Your task to perform on an android device: What's on my calendar today? Image 0: 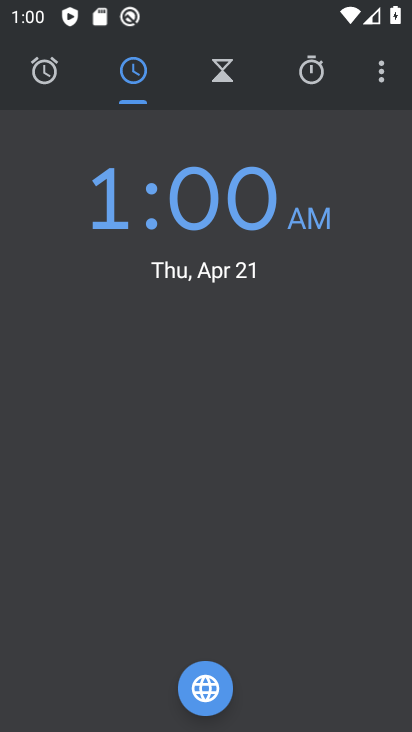
Step 0: press home button
Your task to perform on an android device: What's on my calendar today? Image 1: 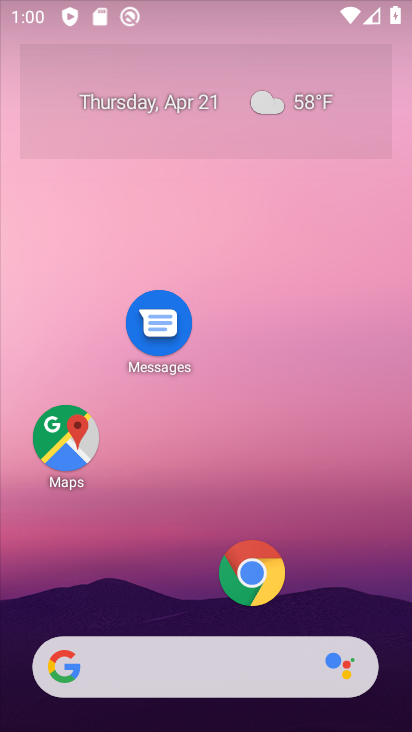
Step 1: drag from (190, 396) to (163, 71)
Your task to perform on an android device: What's on my calendar today? Image 2: 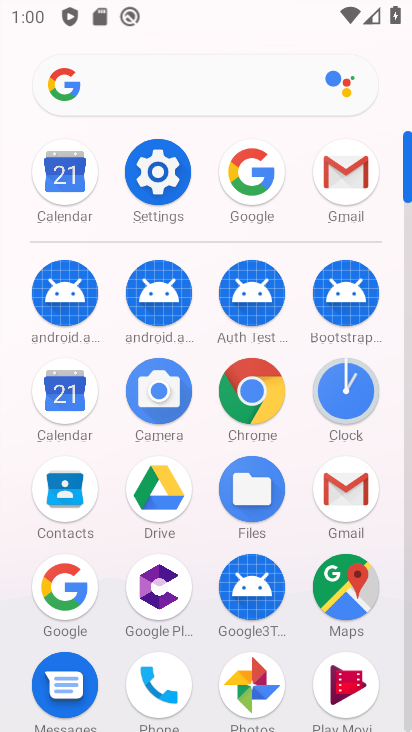
Step 2: click (68, 175)
Your task to perform on an android device: What's on my calendar today? Image 3: 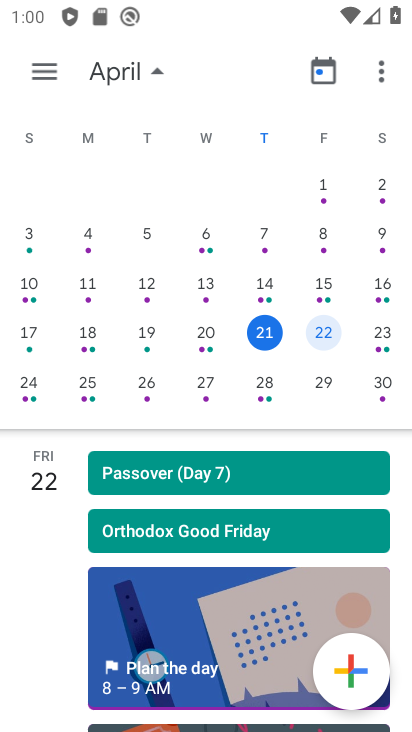
Step 3: click (272, 338)
Your task to perform on an android device: What's on my calendar today? Image 4: 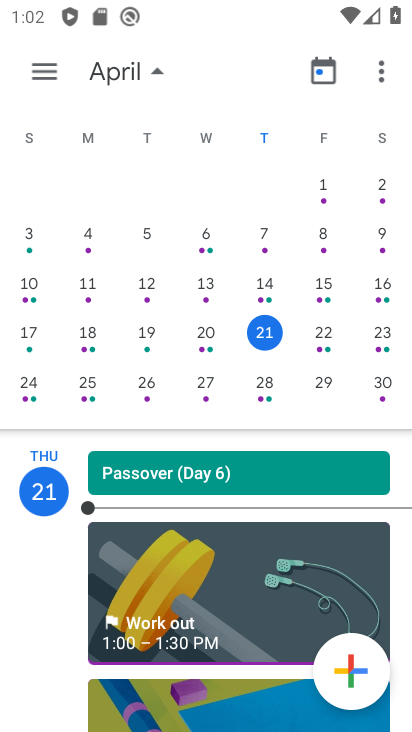
Step 4: task complete